Your task to perform on an android device: check out phone information Image 0: 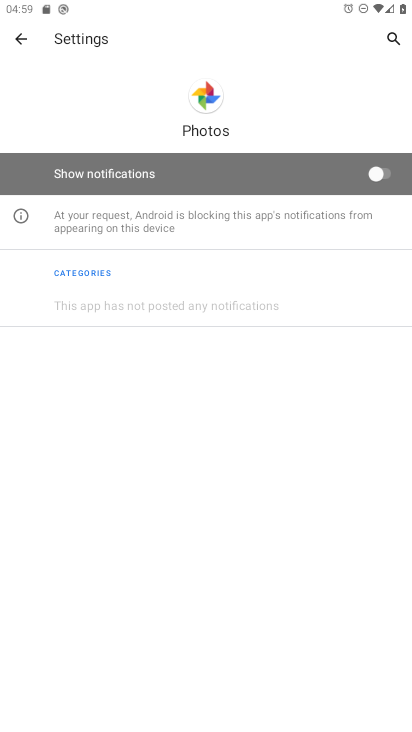
Step 0: press home button
Your task to perform on an android device: check out phone information Image 1: 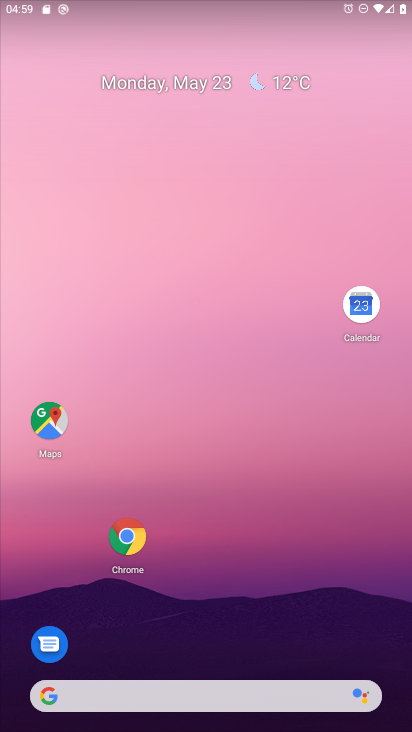
Step 1: drag from (244, 615) to (178, 9)
Your task to perform on an android device: check out phone information Image 2: 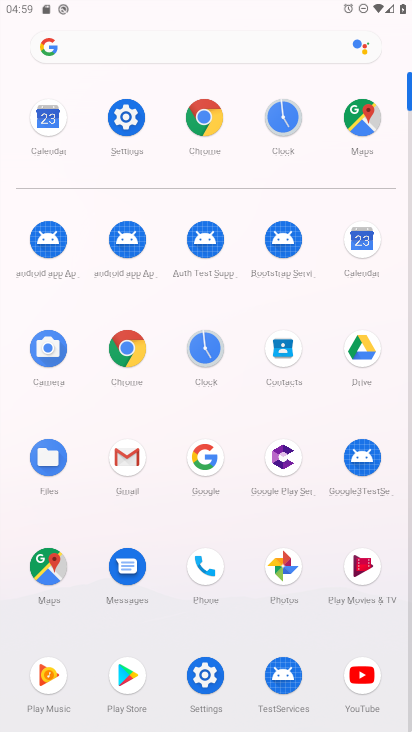
Step 2: click (215, 562)
Your task to perform on an android device: check out phone information Image 3: 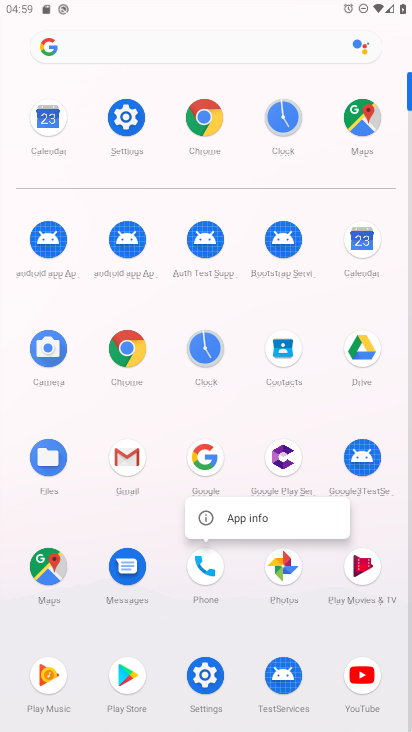
Step 3: click (252, 514)
Your task to perform on an android device: check out phone information Image 4: 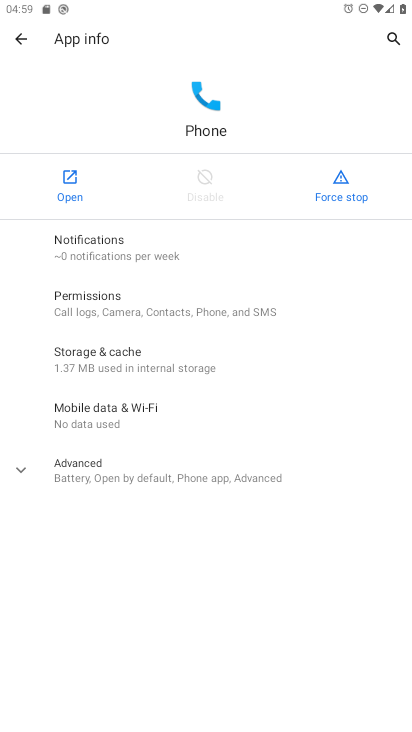
Step 4: task complete